Your task to perform on an android device: check android version Image 0: 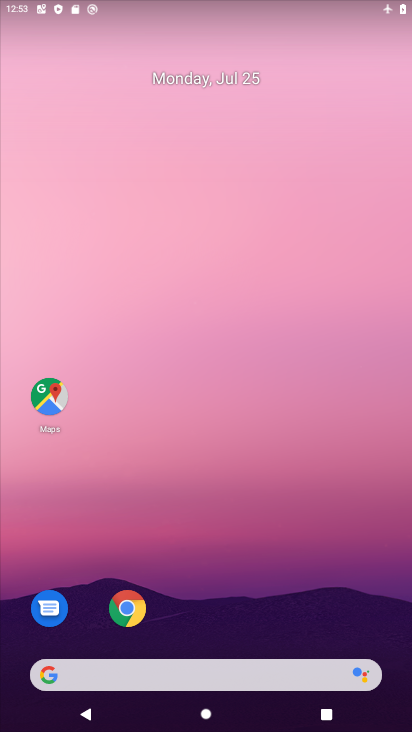
Step 0: drag from (254, 599) to (272, 15)
Your task to perform on an android device: check android version Image 1: 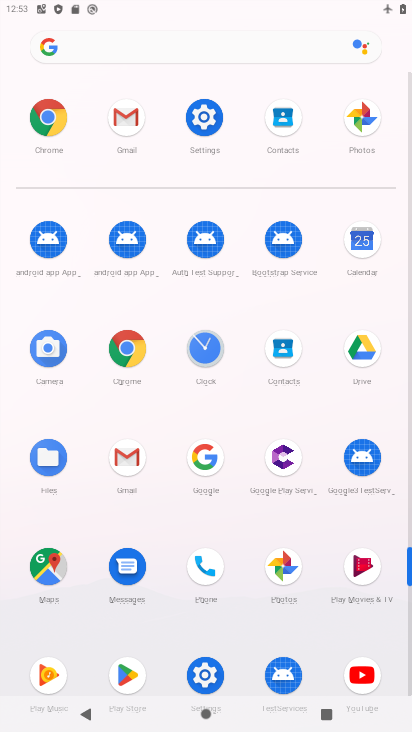
Step 1: click (203, 117)
Your task to perform on an android device: check android version Image 2: 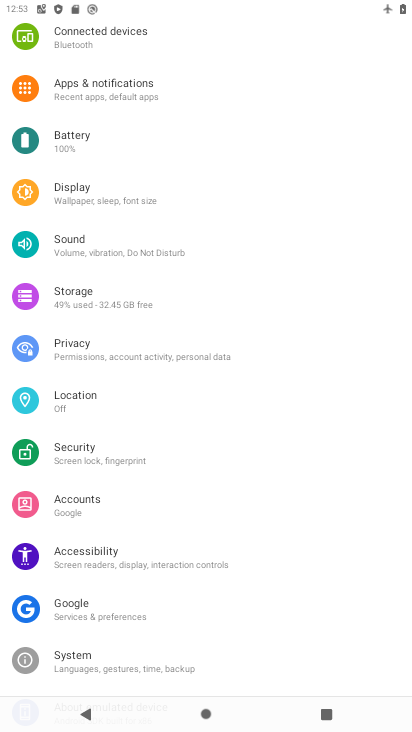
Step 2: drag from (232, 611) to (219, 157)
Your task to perform on an android device: check android version Image 3: 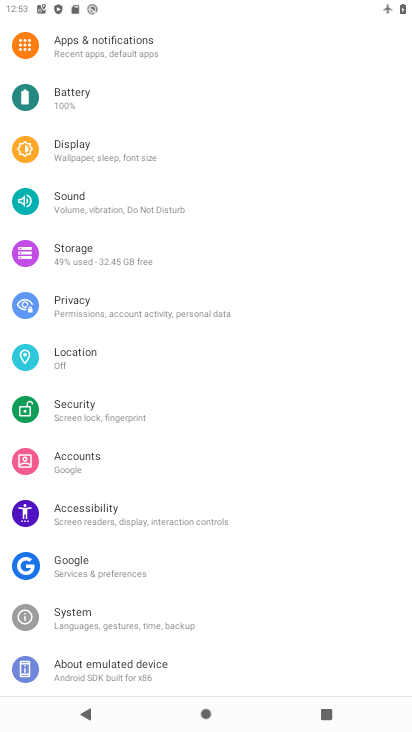
Step 3: click (99, 682)
Your task to perform on an android device: check android version Image 4: 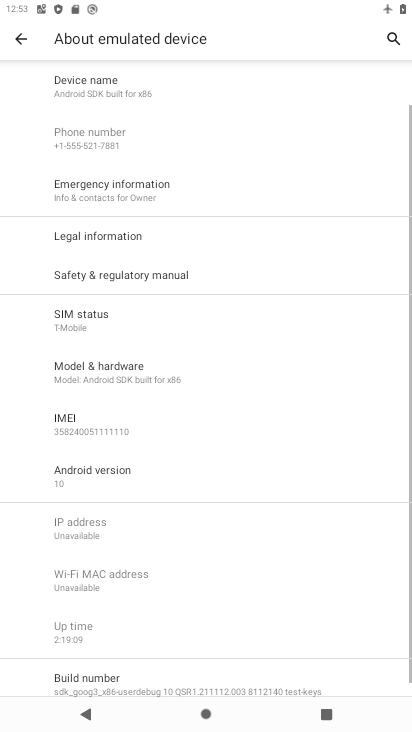
Step 4: click (91, 476)
Your task to perform on an android device: check android version Image 5: 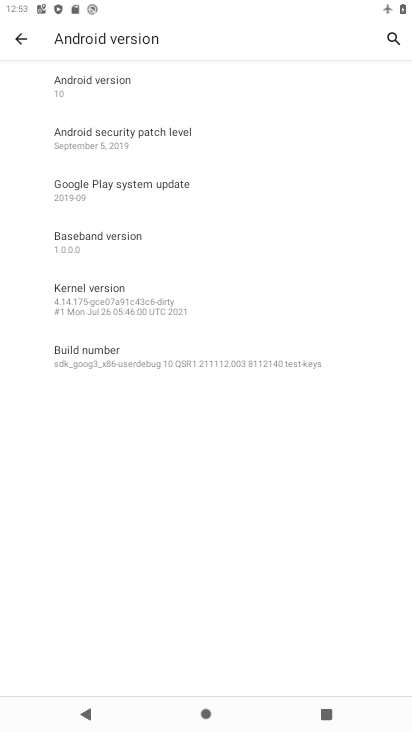
Step 5: task complete